Your task to perform on an android device: When is my next appointment? Image 0: 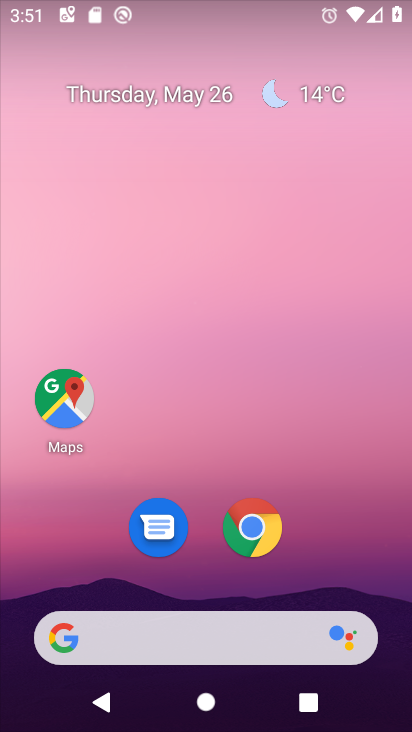
Step 0: drag from (344, 573) to (245, 138)
Your task to perform on an android device: When is my next appointment? Image 1: 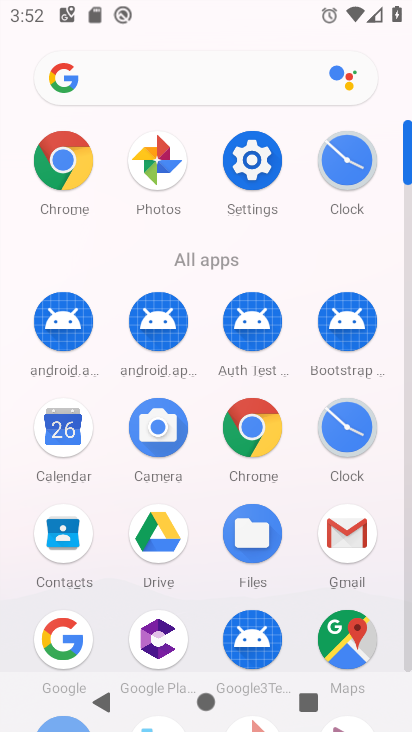
Step 1: click (69, 419)
Your task to perform on an android device: When is my next appointment? Image 2: 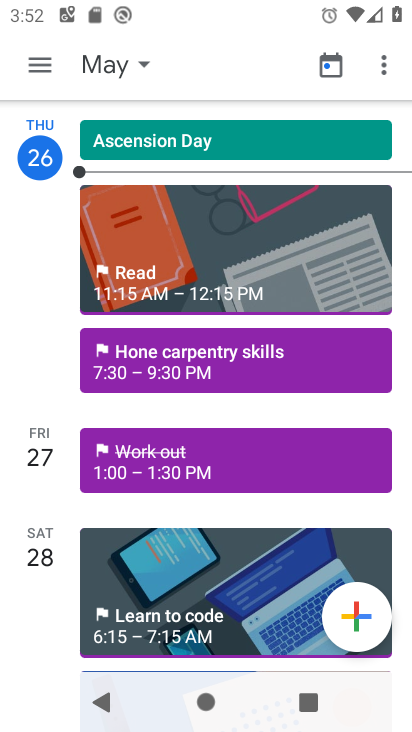
Step 2: task complete